Your task to perform on an android device: change notification settings in the gmail app Image 0: 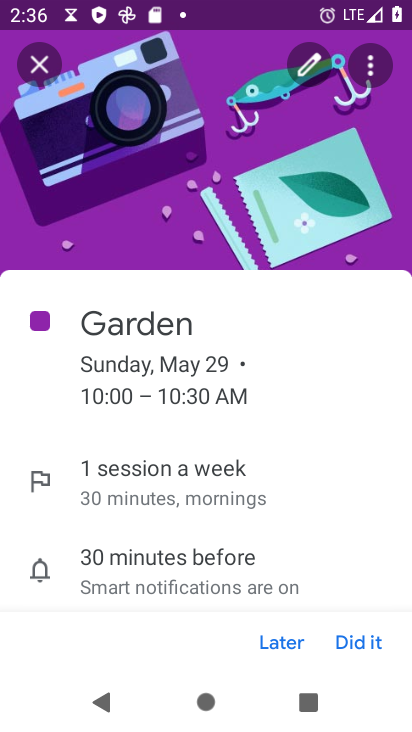
Step 0: press home button
Your task to perform on an android device: change notification settings in the gmail app Image 1: 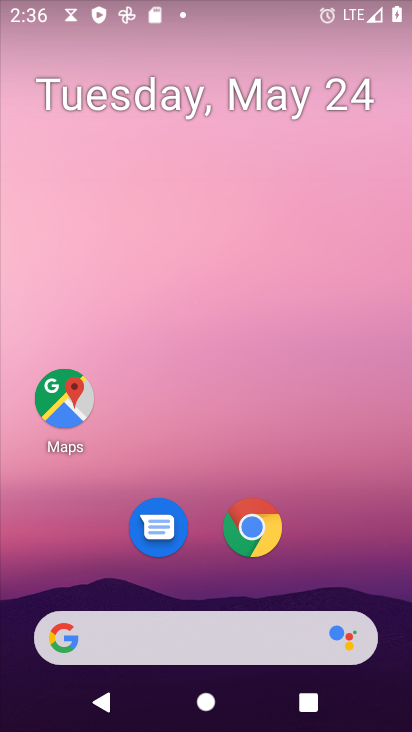
Step 1: drag from (237, 642) to (324, 206)
Your task to perform on an android device: change notification settings in the gmail app Image 2: 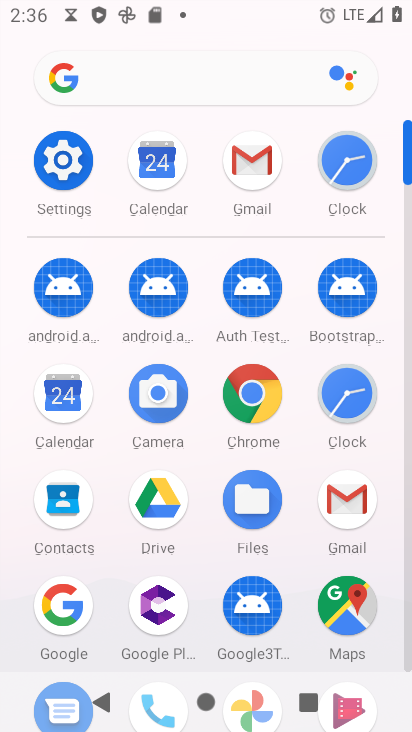
Step 2: click (235, 175)
Your task to perform on an android device: change notification settings in the gmail app Image 3: 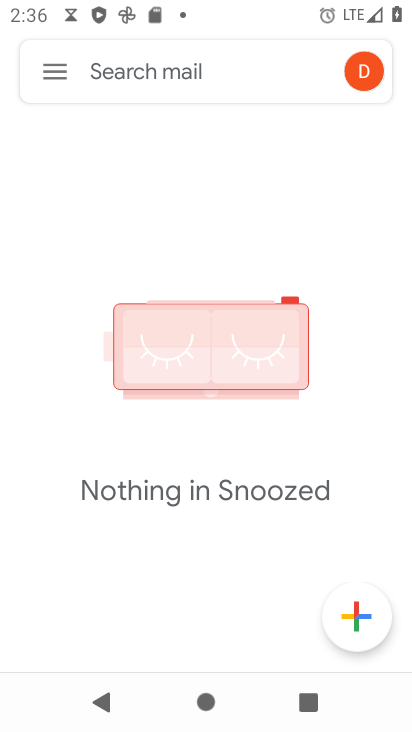
Step 3: click (56, 75)
Your task to perform on an android device: change notification settings in the gmail app Image 4: 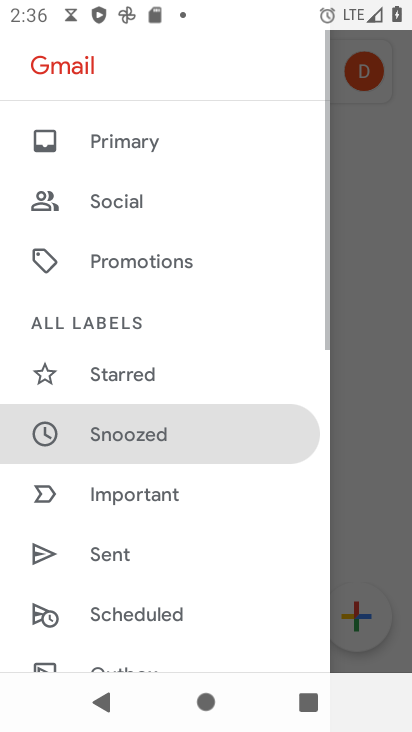
Step 4: drag from (194, 544) to (243, 148)
Your task to perform on an android device: change notification settings in the gmail app Image 5: 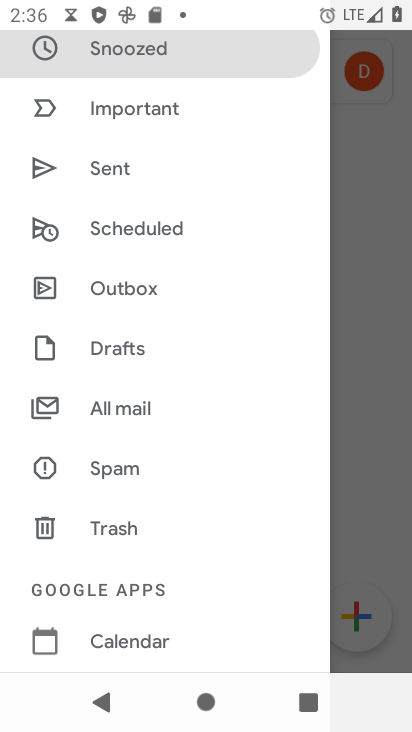
Step 5: drag from (183, 503) to (167, 132)
Your task to perform on an android device: change notification settings in the gmail app Image 6: 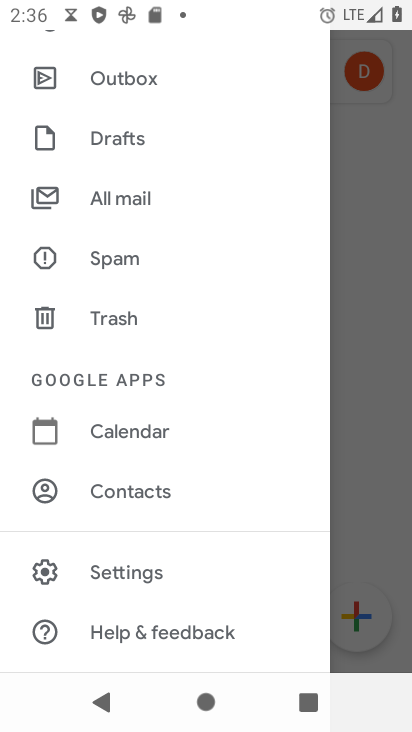
Step 6: click (137, 557)
Your task to perform on an android device: change notification settings in the gmail app Image 7: 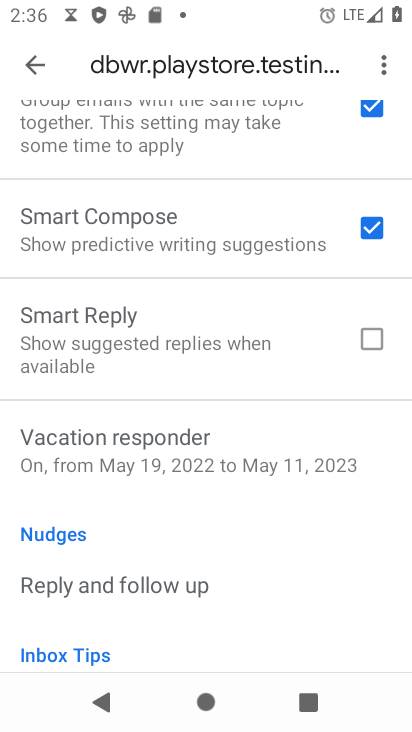
Step 7: drag from (217, 140) to (197, 669)
Your task to perform on an android device: change notification settings in the gmail app Image 8: 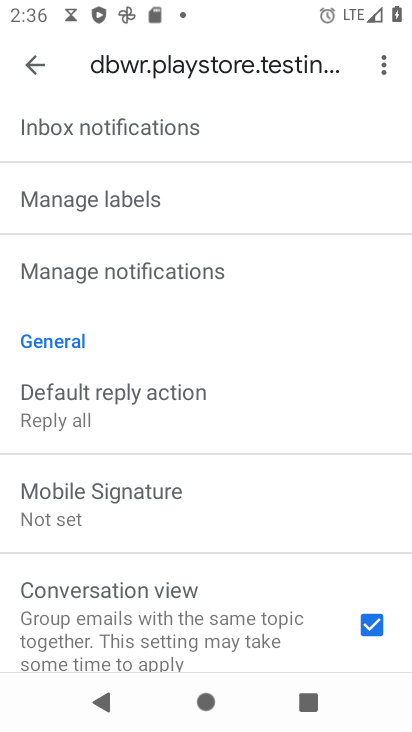
Step 8: drag from (211, 262) to (198, 554)
Your task to perform on an android device: change notification settings in the gmail app Image 9: 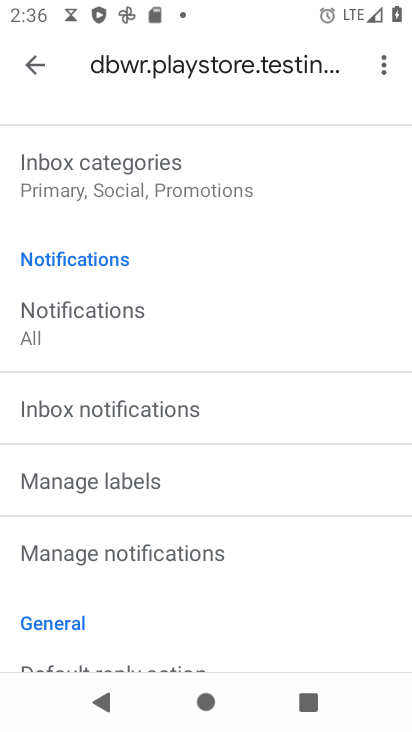
Step 9: click (83, 331)
Your task to perform on an android device: change notification settings in the gmail app Image 10: 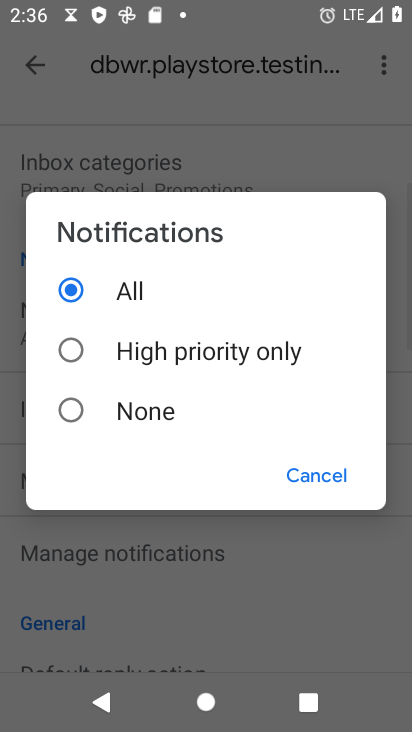
Step 10: click (71, 418)
Your task to perform on an android device: change notification settings in the gmail app Image 11: 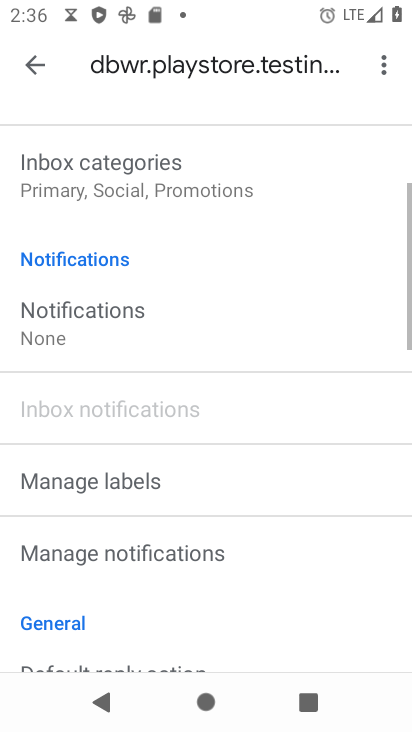
Step 11: task complete